Your task to perform on an android device: Go to Wikipedia Image 0: 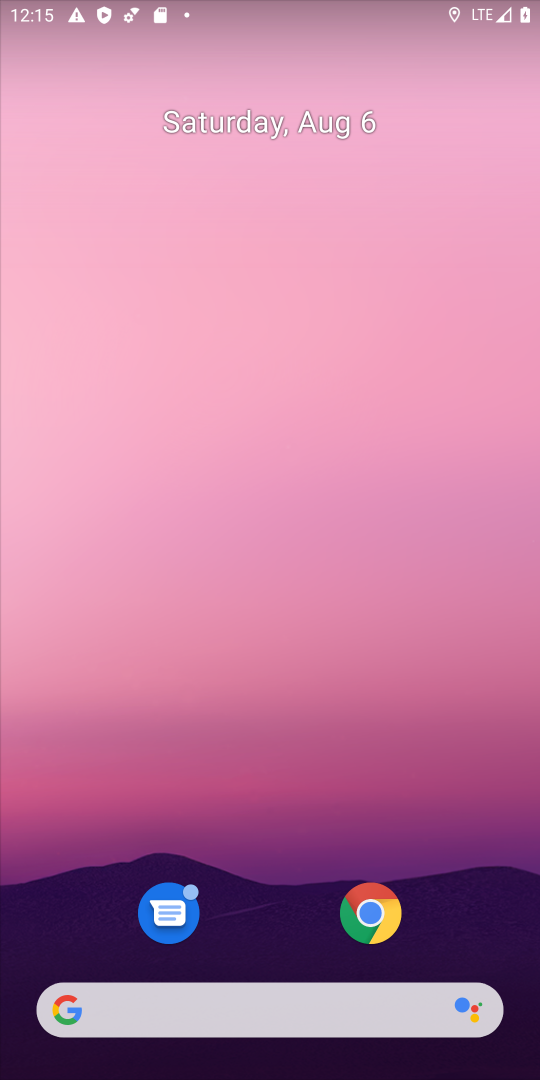
Step 0: press home button
Your task to perform on an android device: Go to Wikipedia Image 1: 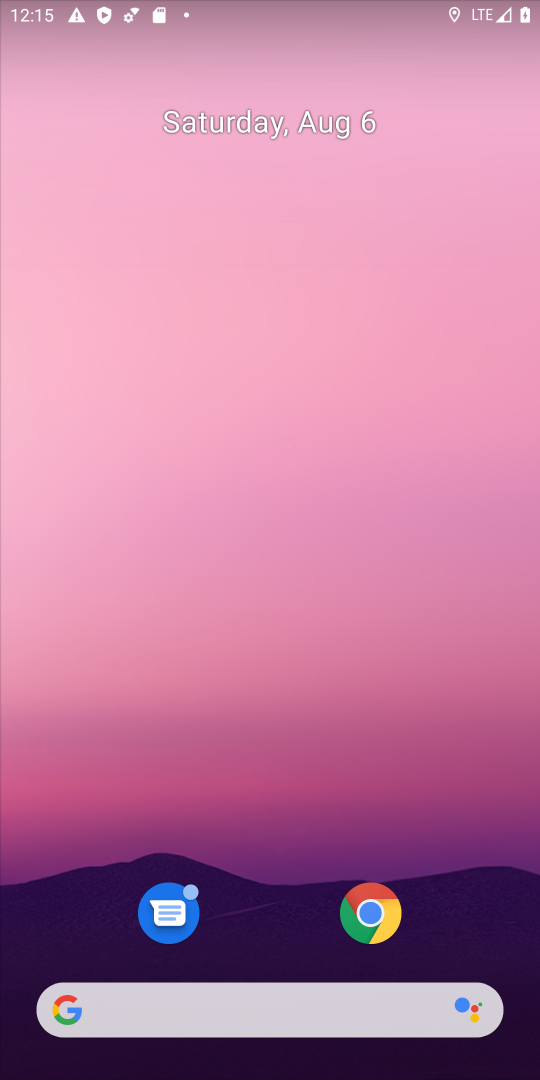
Step 1: drag from (467, 884) to (505, 269)
Your task to perform on an android device: Go to Wikipedia Image 2: 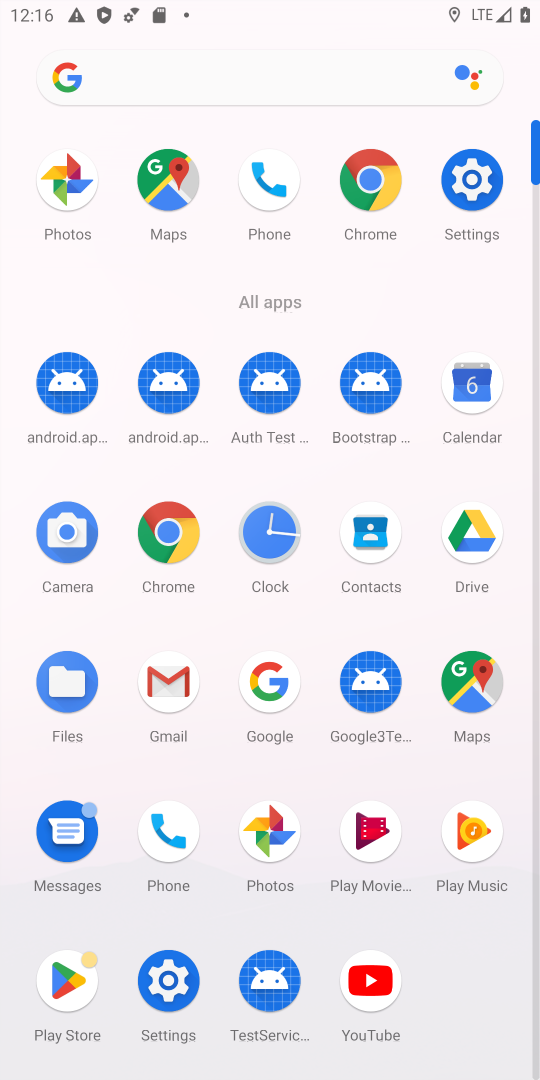
Step 2: click (173, 528)
Your task to perform on an android device: Go to Wikipedia Image 3: 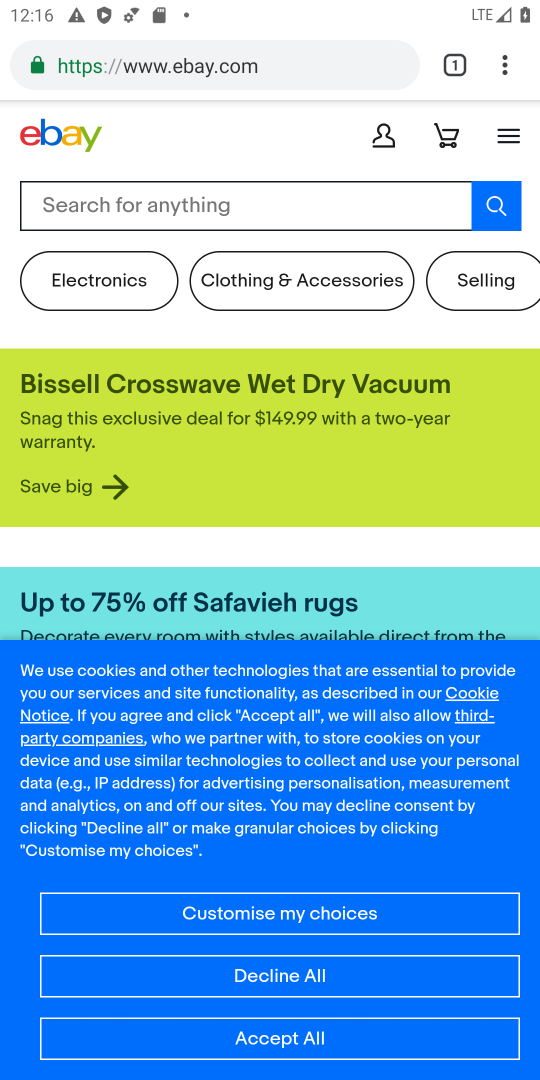
Step 3: click (262, 61)
Your task to perform on an android device: Go to Wikipedia Image 4: 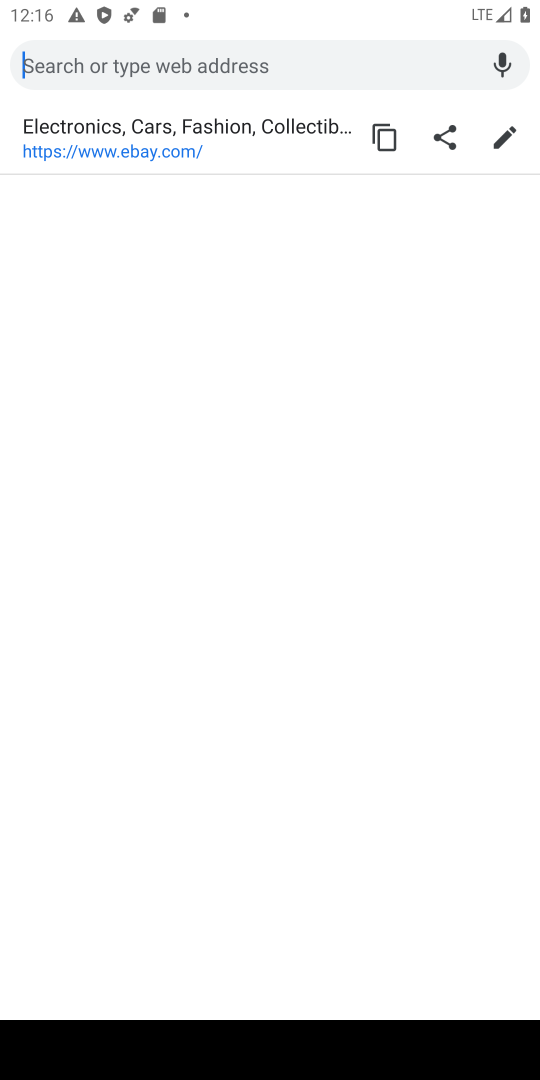
Step 4: type "wikipeda"
Your task to perform on an android device: Go to Wikipedia Image 5: 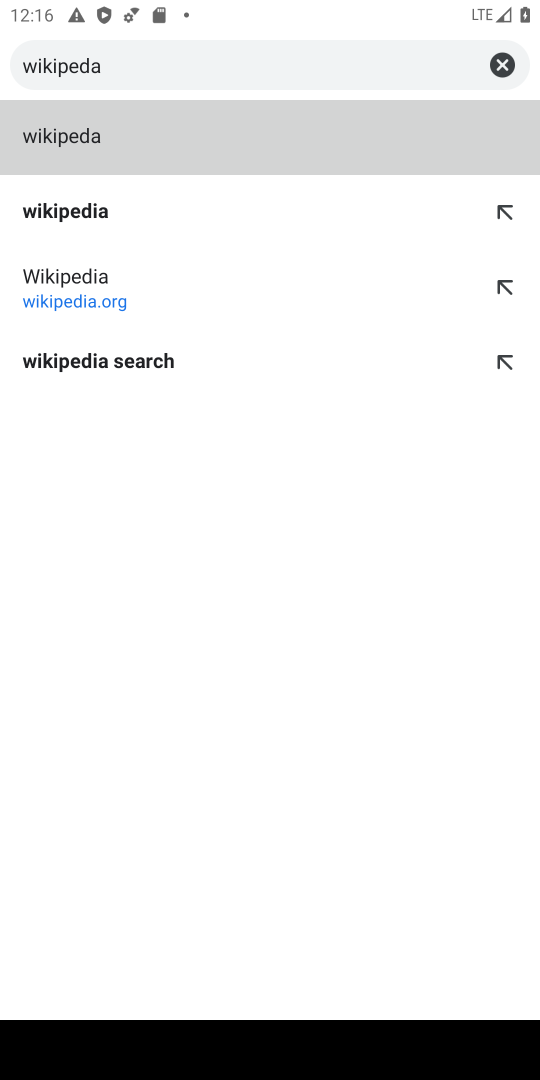
Step 5: click (135, 207)
Your task to perform on an android device: Go to Wikipedia Image 6: 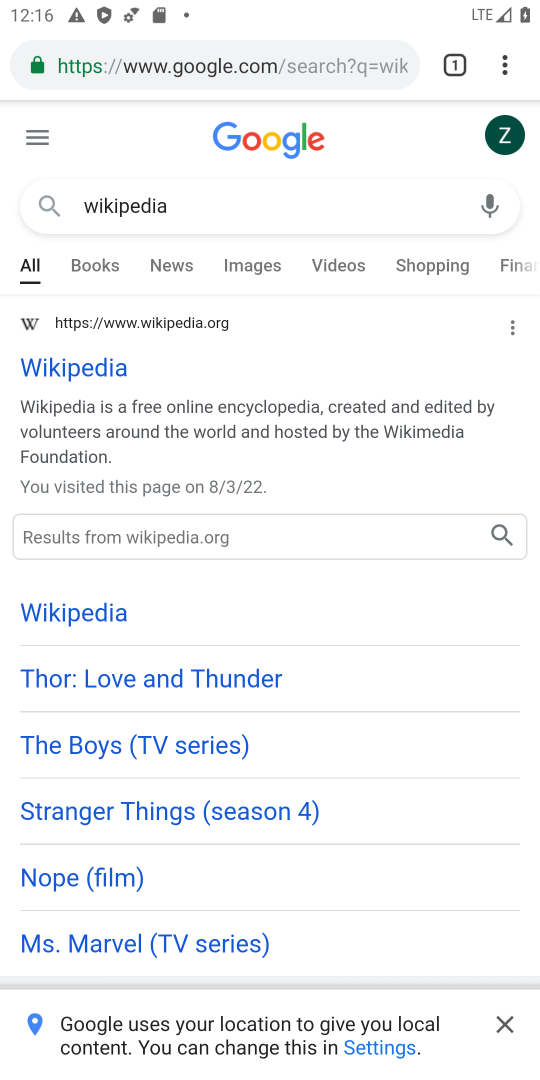
Step 6: task complete